Your task to perform on an android device: change the clock display to analog Image 0: 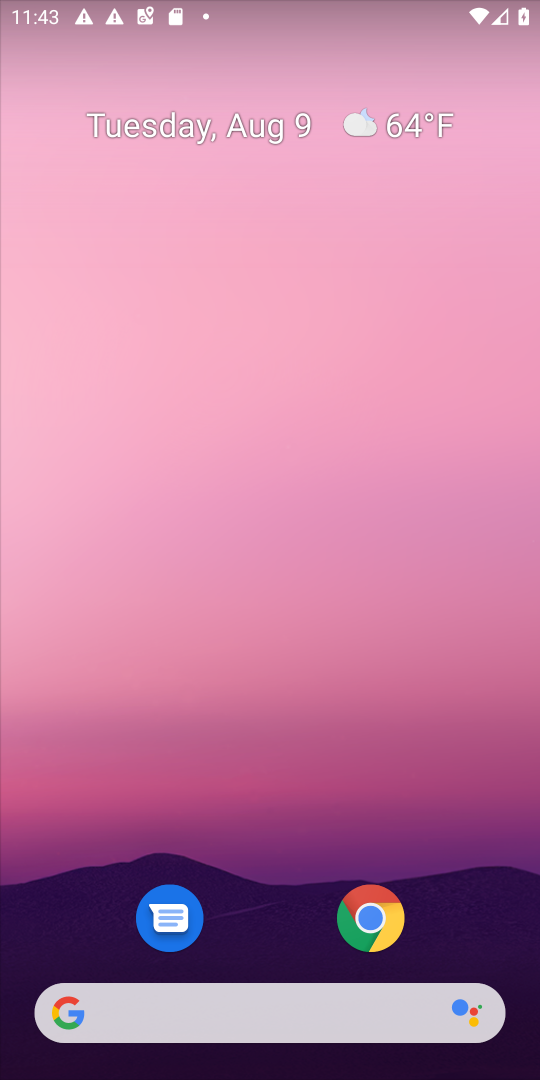
Step 0: drag from (256, 873) to (433, 173)
Your task to perform on an android device: change the clock display to analog Image 1: 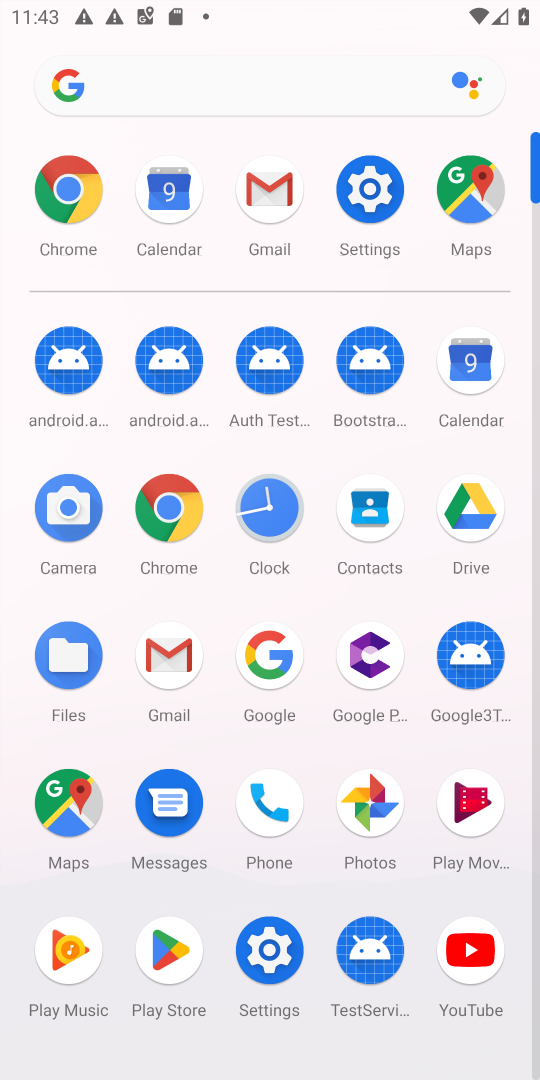
Step 1: click (265, 501)
Your task to perform on an android device: change the clock display to analog Image 2: 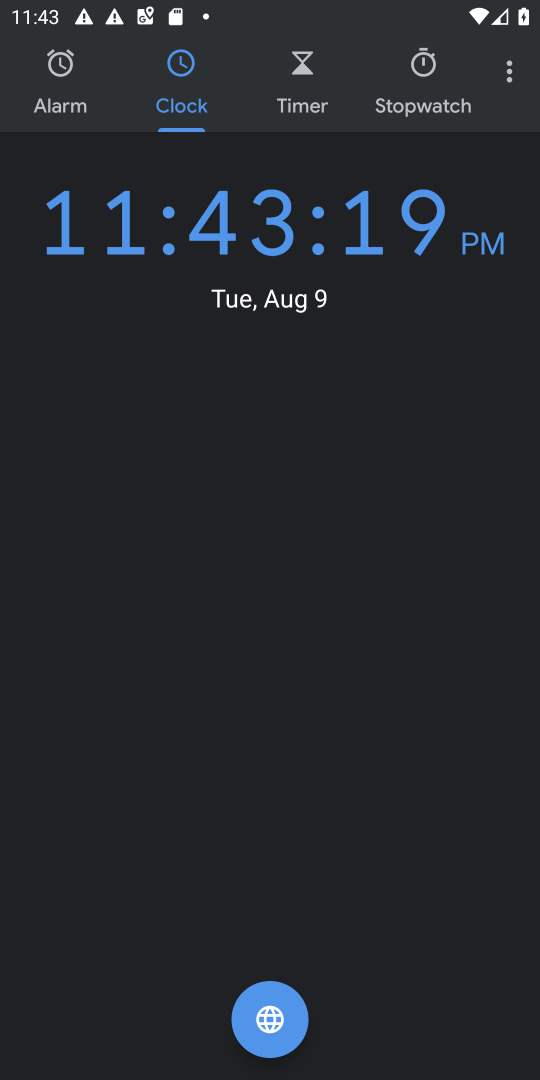
Step 2: click (518, 72)
Your task to perform on an android device: change the clock display to analog Image 3: 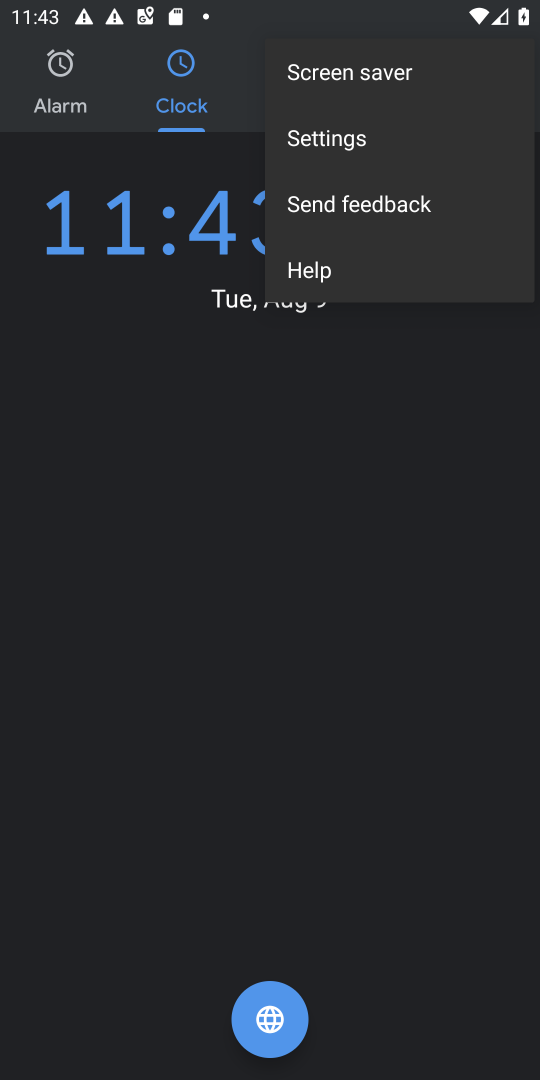
Step 3: click (326, 154)
Your task to perform on an android device: change the clock display to analog Image 4: 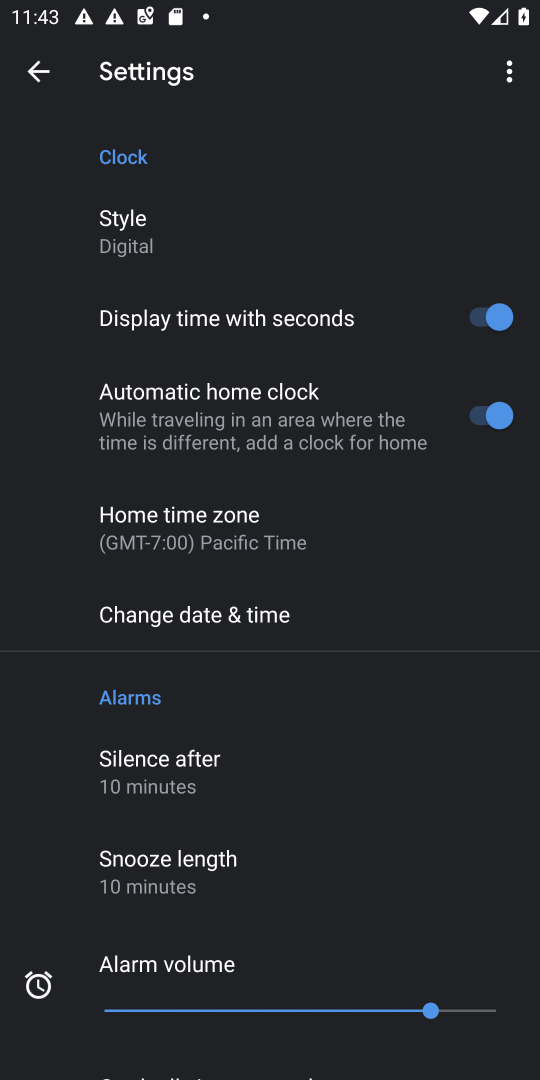
Step 4: click (154, 230)
Your task to perform on an android device: change the clock display to analog Image 5: 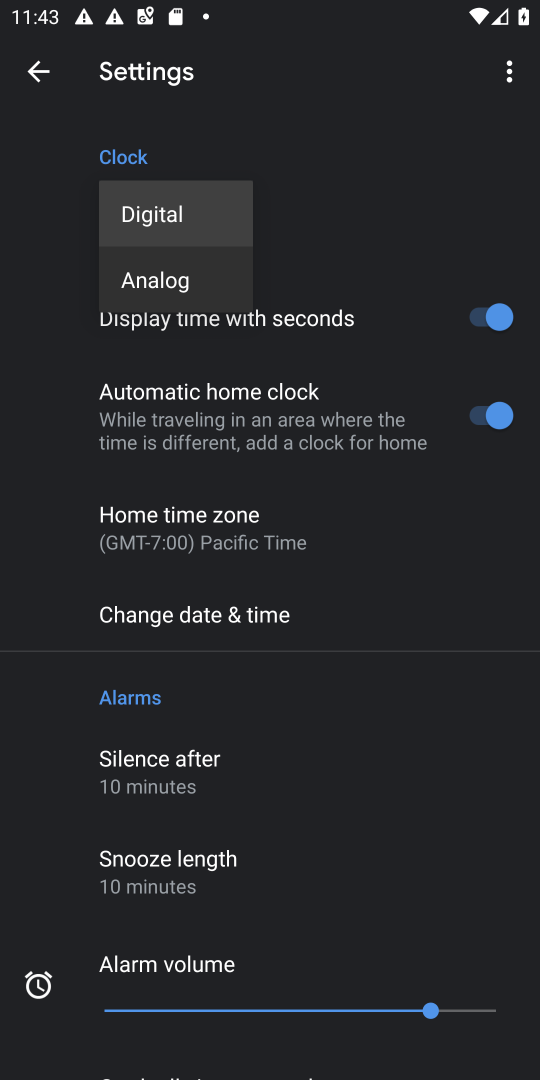
Step 5: click (168, 287)
Your task to perform on an android device: change the clock display to analog Image 6: 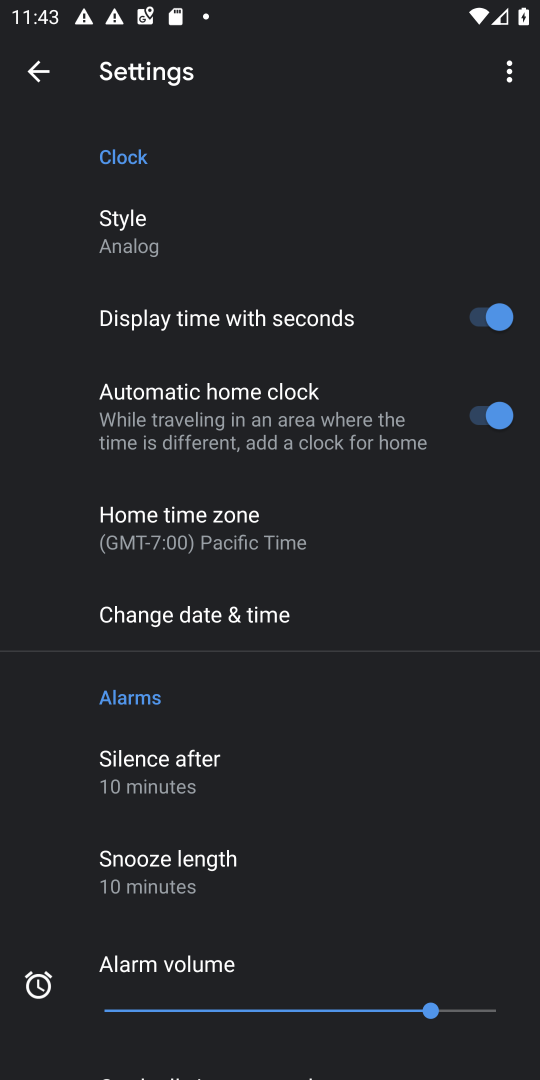
Step 6: task complete